Your task to perform on an android device: Is it going to rain today? Image 0: 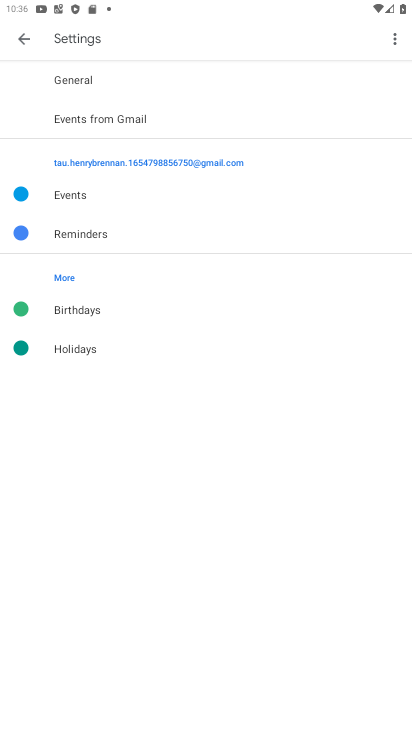
Step 0: press home button
Your task to perform on an android device: Is it going to rain today? Image 1: 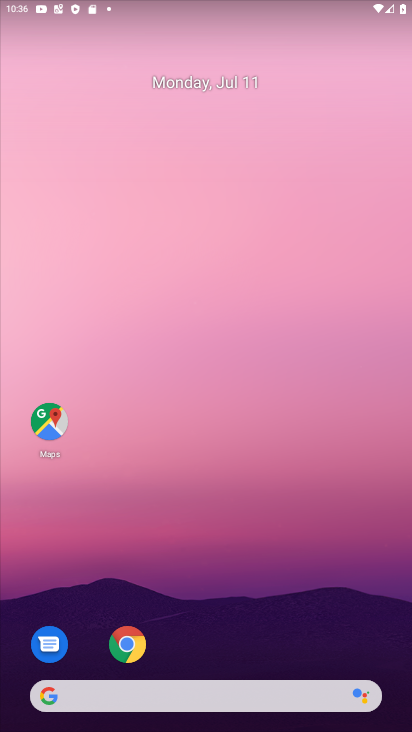
Step 1: click (165, 691)
Your task to perform on an android device: Is it going to rain today? Image 2: 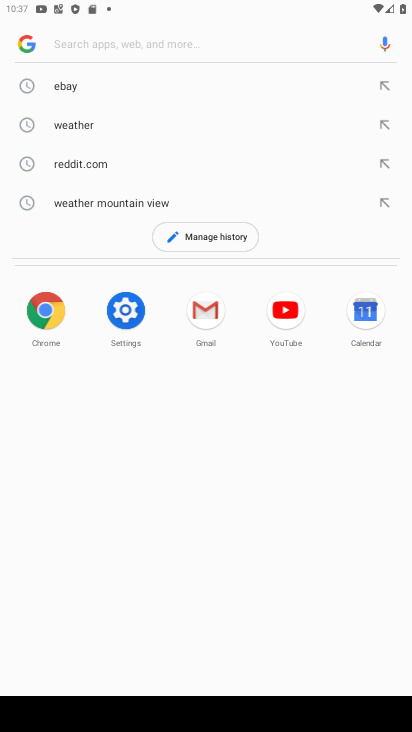
Step 2: click (95, 129)
Your task to perform on an android device: Is it going to rain today? Image 3: 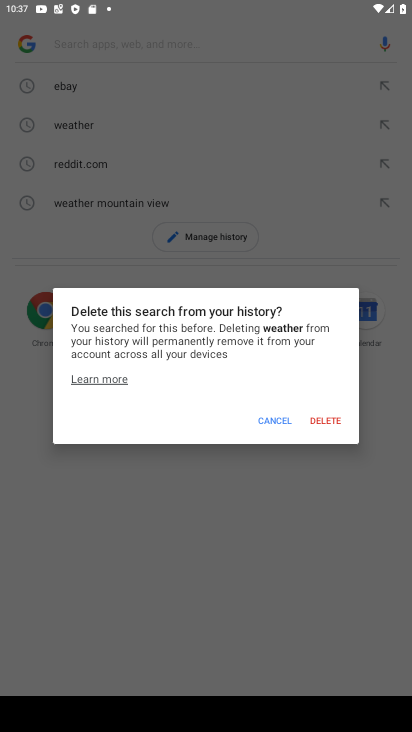
Step 3: click (271, 420)
Your task to perform on an android device: Is it going to rain today? Image 4: 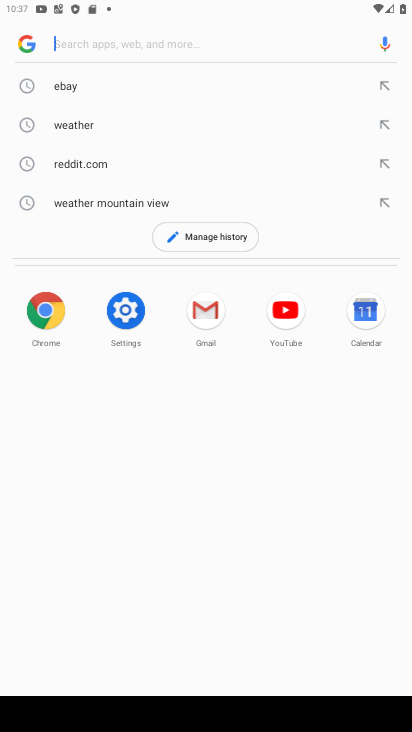
Step 4: click (83, 129)
Your task to perform on an android device: Is it going to rain today? Image 5: 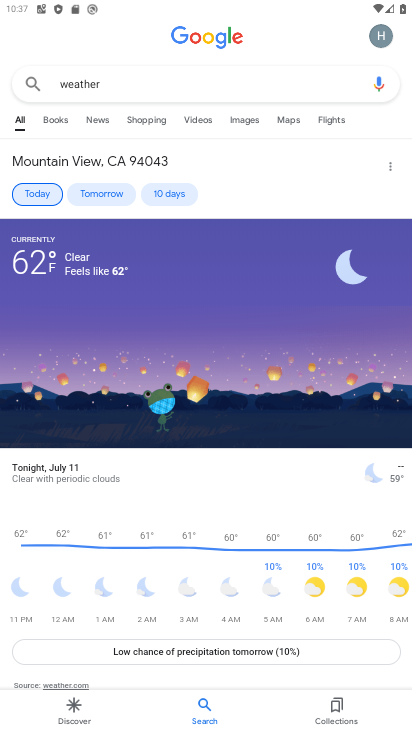
Step 5: task complete